Your task to perform on an android device: Open the phone app and click the voicemail tab. Image 0: 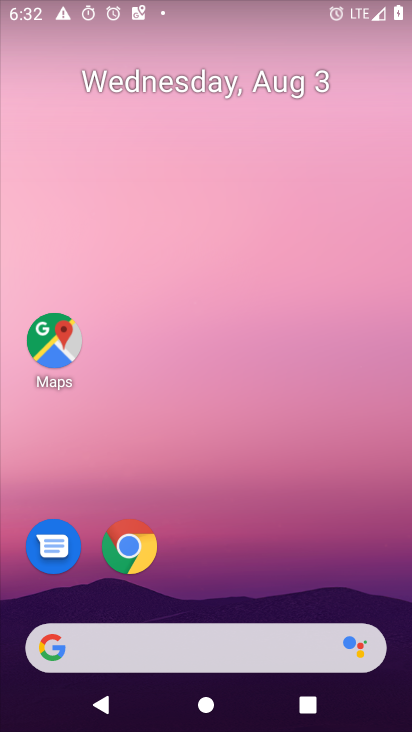
Step 0: press home button
Your task to perform on an android device: Open the phone app and click the voicemail tab. Image 1: 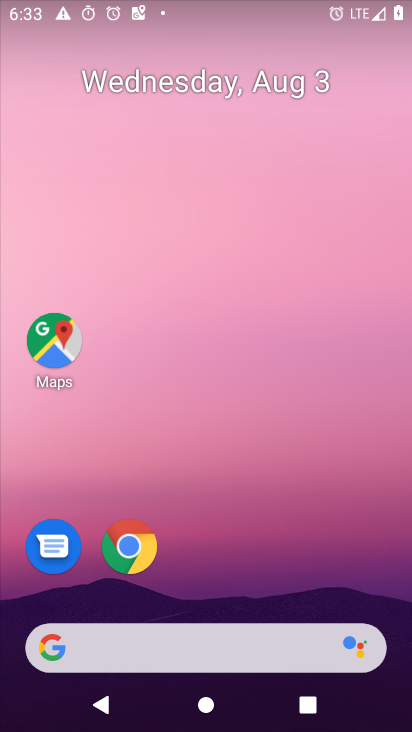
Step 1: drag from (309, 521) to (282, 226)
Your task to perform on an android device: Open the phone app and click the voicemail tab. Image 2: 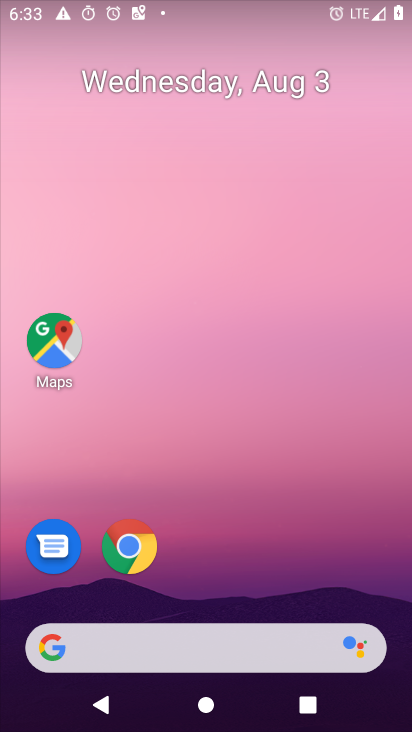
Step 2: drag from (216, 607) to (286, 93)
Your task to perform on an android device: Open the phone app and click the voicemail tab. Image 3: 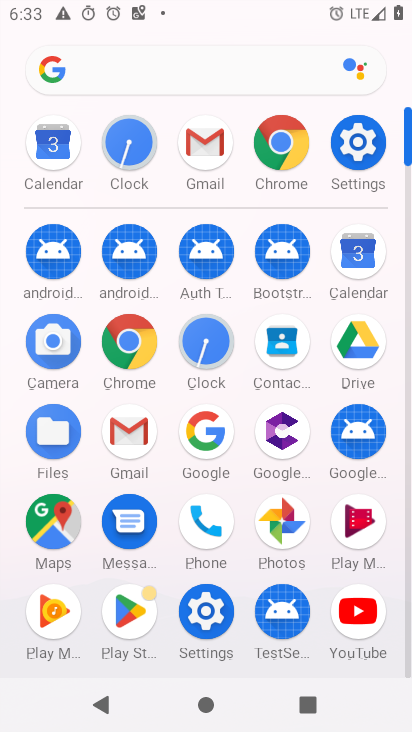
Step 3: click (205, 526)
Your task to perform on an android device: Open the phone app and click the voicemail tab. Image 4: 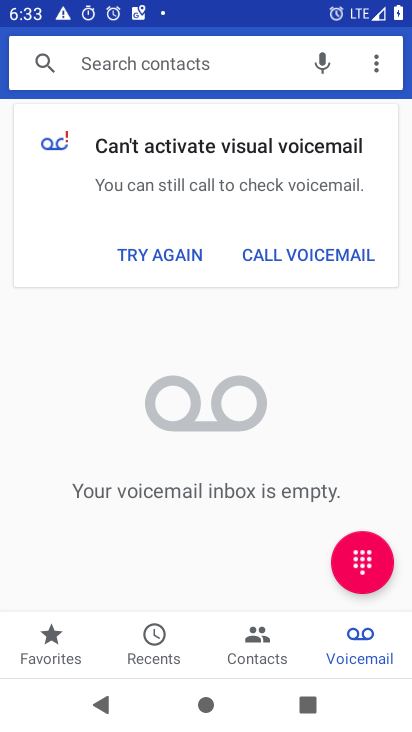
Step 4: click (356, 641)
Your task to perform on an android device: Open the phone app and click the voicemail tab. Image 5: 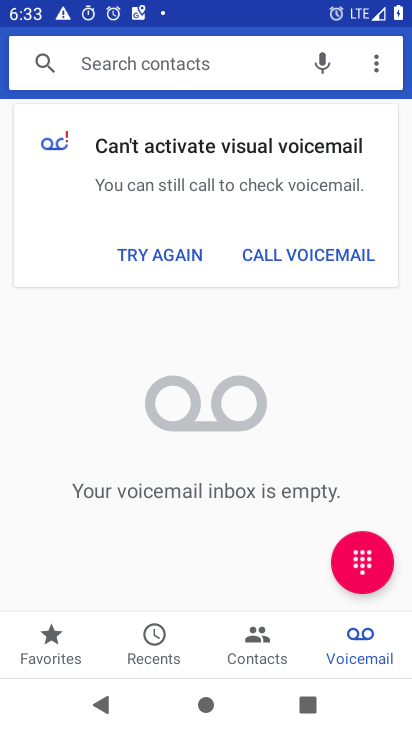
Step 5: task complete